Your task to perform on an android device: toggle notifications settings in the gmail app Image 0: 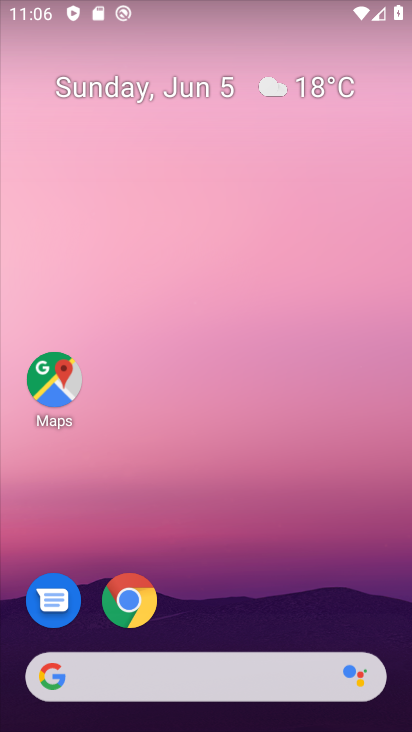
Step 0: drag from (198, 655) to (269, 280)
Your task to perform on an android device: toggle notifications settings in the gmail app Image 1: 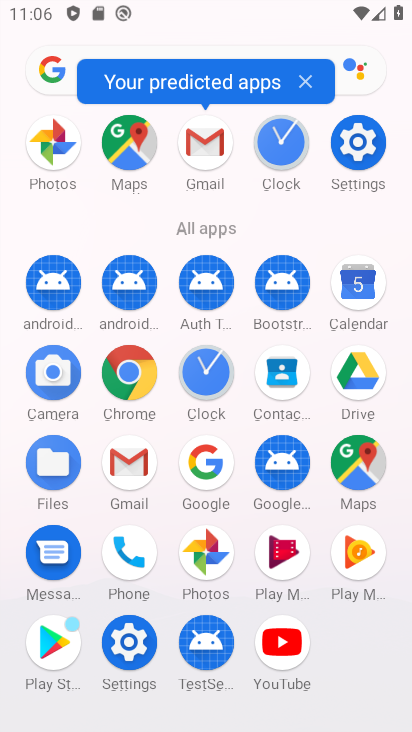
Step 1: click (134, 474)
Your task to perform on an android device: toggle notifications settings in the gmail app Image 2: 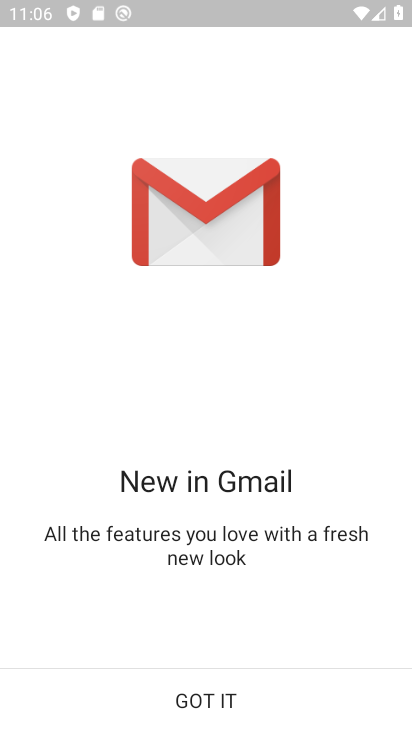
Step 2: click (274, 711)
Your task to perform on an android device: toggle notifications settings in the gmail app Image 3: 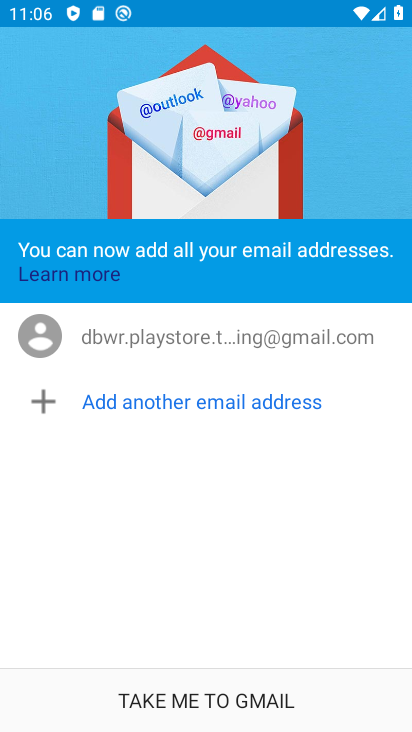
Step 3: click (274, 710)
Your task to perform on an android device: toggle notifications settings in the gmail app Image 4: 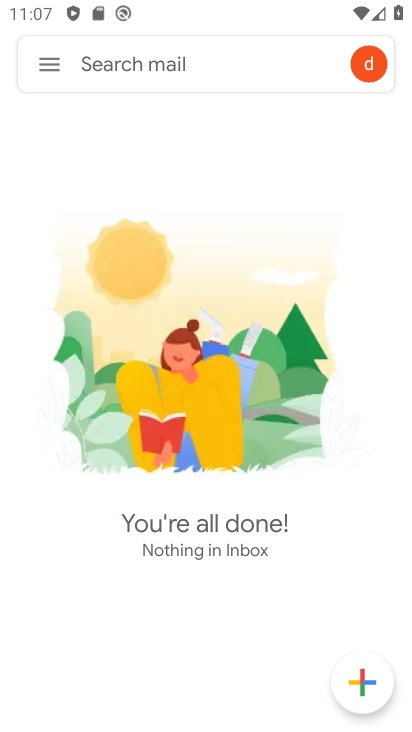
Step 4: click (54, 43)
Your task to perform on an android device: toggle notifications settings in the gmail app Image 5: 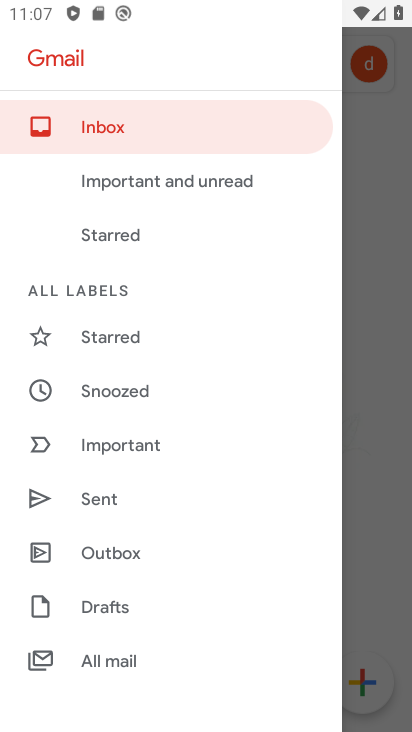
Step 5: drag from (177, 649) to (314, 227)
Your task to perform on an android device: toggle notifications settings in the gmail app Image 6: 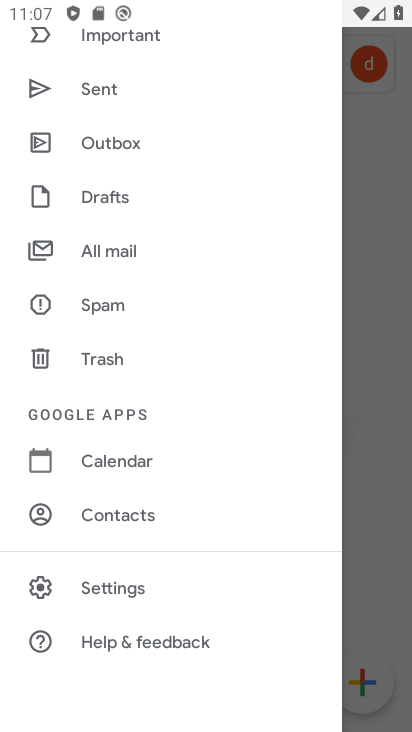
Step 6: click (160, 600)
Your task to perform on an android device: toggle notifications settings in the gmail app Image 7: 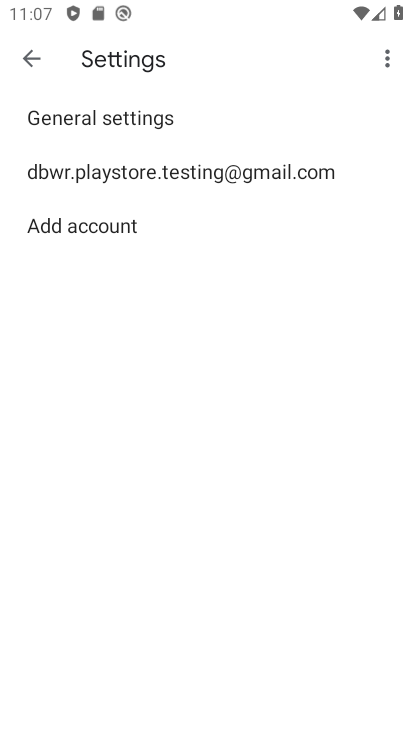
Step 7: click (279, 174)
Your task to perform on an android device: toggle notifications settings in the gmail app Image 8: 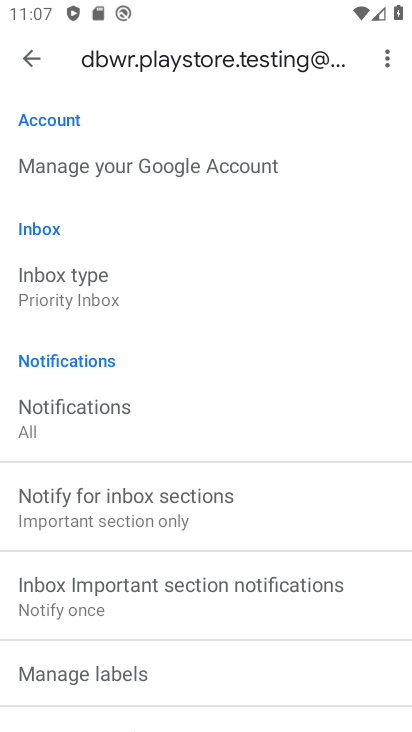
Step 8: drag from (208, 667) to (298, 350)
Your task to perform on an android device: toggle notifications settings in the gmail app Image 9: 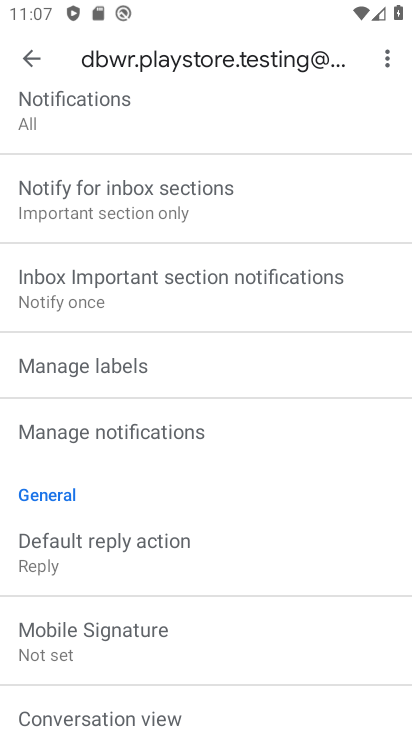
Step 9: click (216, 445)
Your task to perform on an android device: toggle notifications settings in the gmail app Image 10: 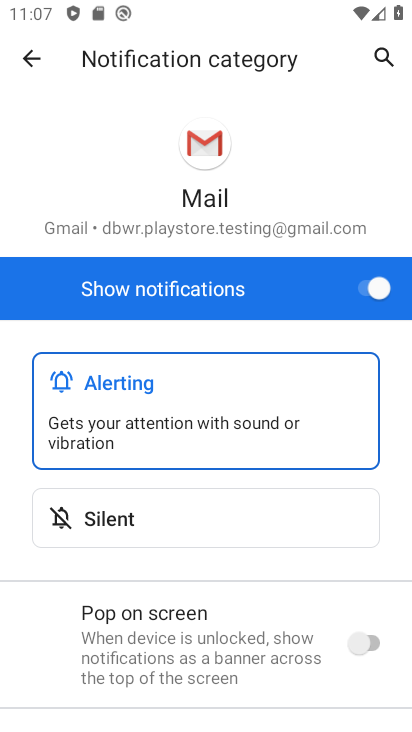
Step 10: click (365, 287)
Your task to perform on an android device: toggle notifications settings in the gmail app Image 11: 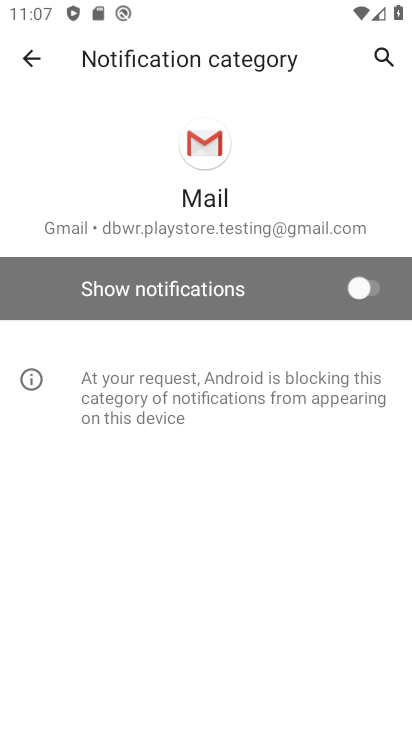
Step 11: task complete